Your task to perform on an android device: What's on my calendar today? Image 0: 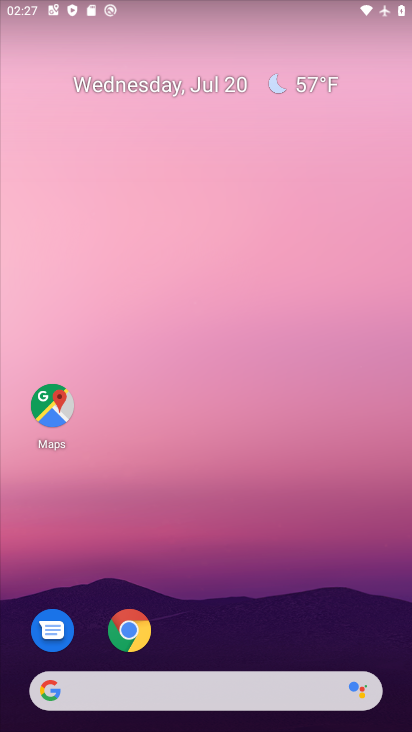
Step 0: drag from (351, 611) to (104, 116)
Your task to perform on an android device: What's on my calendar today? Image 1: 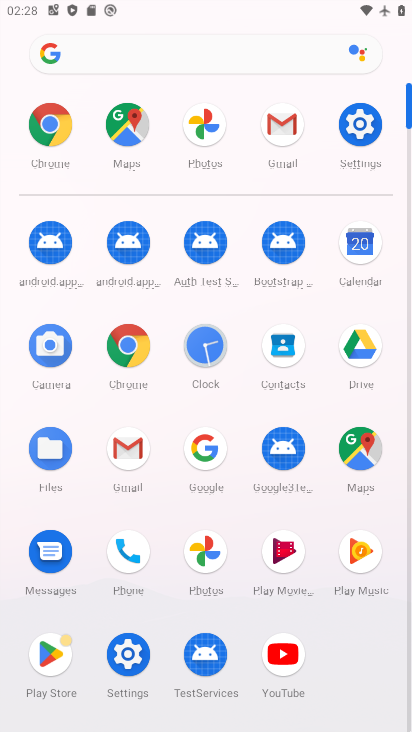
Step 1: click (354, 241)
Your task to perform on an android device: What's on my calendar today? Image 2: 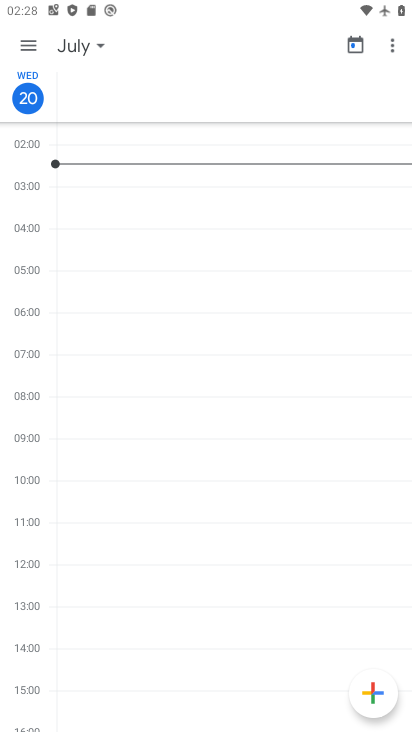
Step 2: click (76, 45)
Your task to perform on an android device: What's on my calendar today? Image 3: 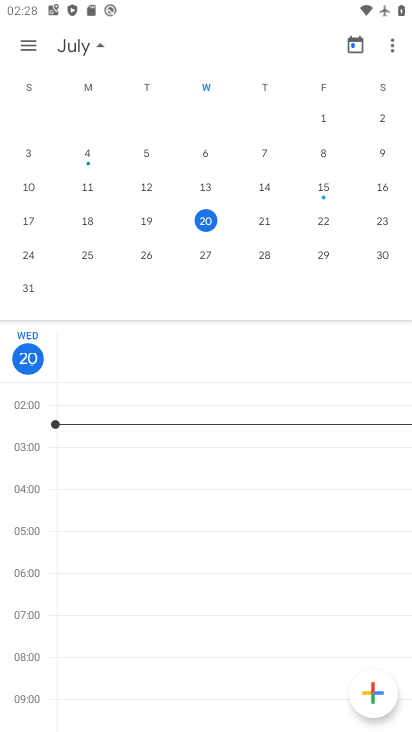
Step 3: task complete